Your task to perform on an android device: Open settings on Google Maps Image 0: 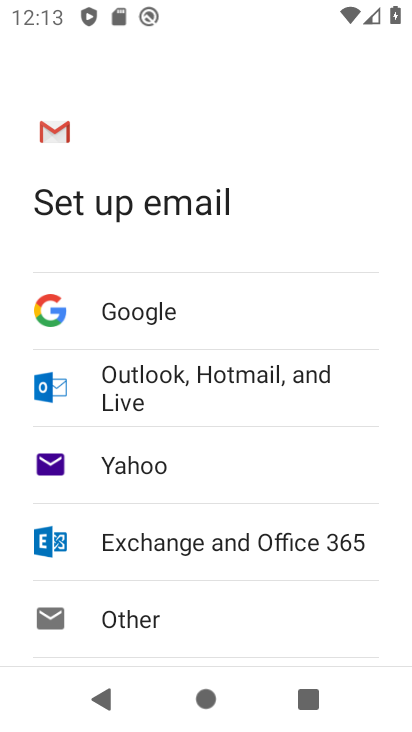
Step 0: press home button
Your task to perform on an android device: Open settings on Google Maps Image 1: 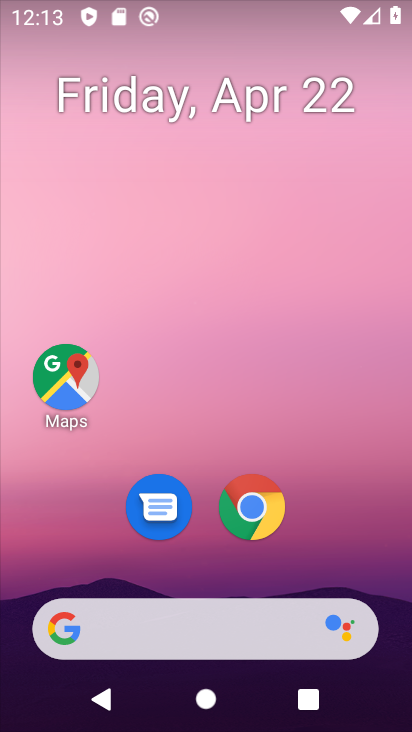
Step 1: click (45, 386)
Your task to perform on an android device: Open settings on Google Maps Image 2: 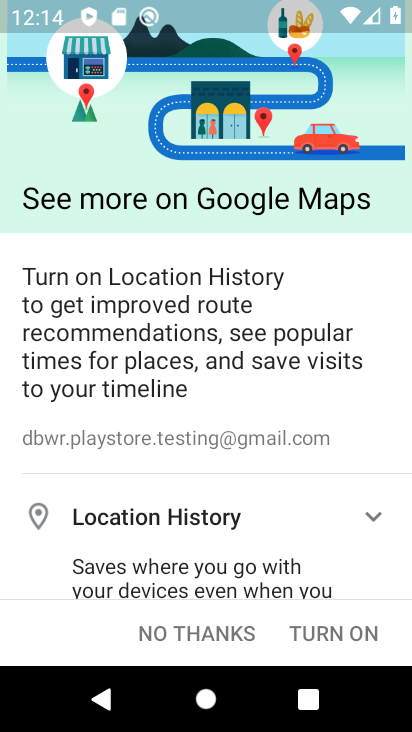
Step 2: press back button
Your task to perform on an android device: Open settings on Google Maps Image 3: 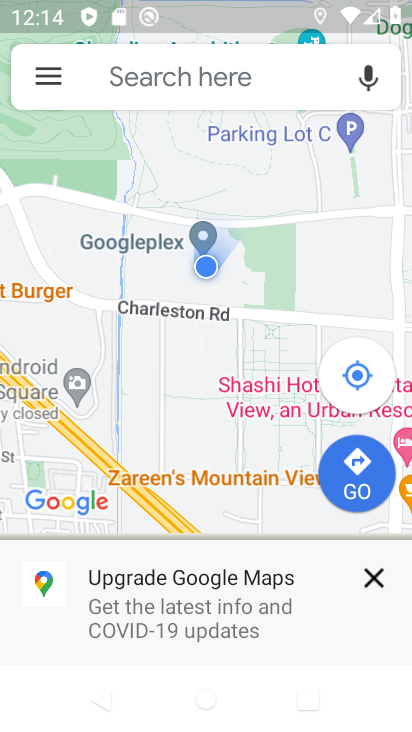
Step 3: click (43, 79)
Your task to perform on an android device: Open settings on Google Maps Image 4: 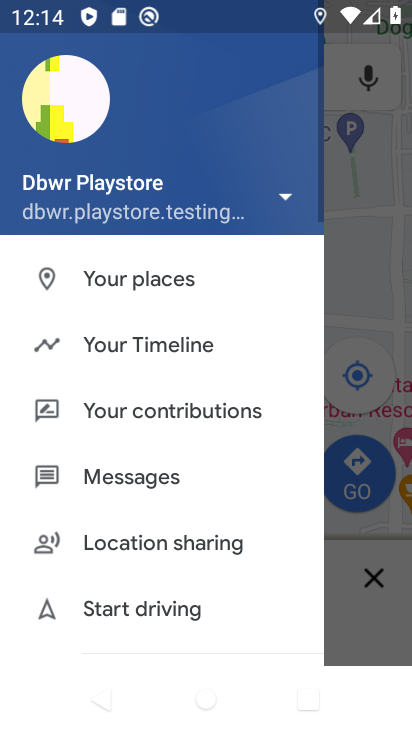
Step 4: drag from (110, 593) to (115, 268)
Your task to perform on an android device: Open settings on Google Maps Image 5: 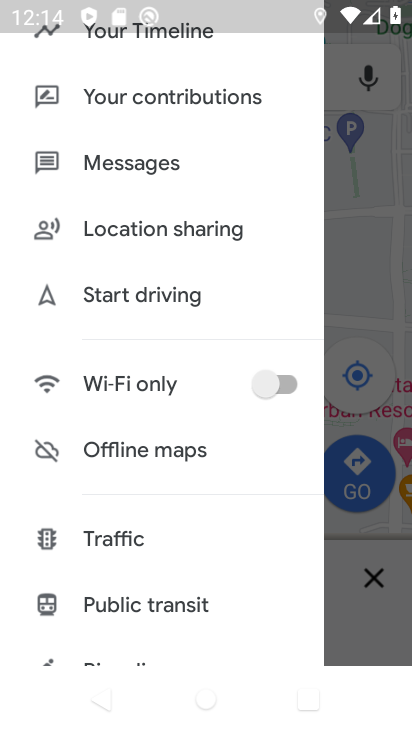
Step 5: drag from (121, 568) to (132, 228)
Your task to perform on an android device: Open settings on Google Maps Image 6: 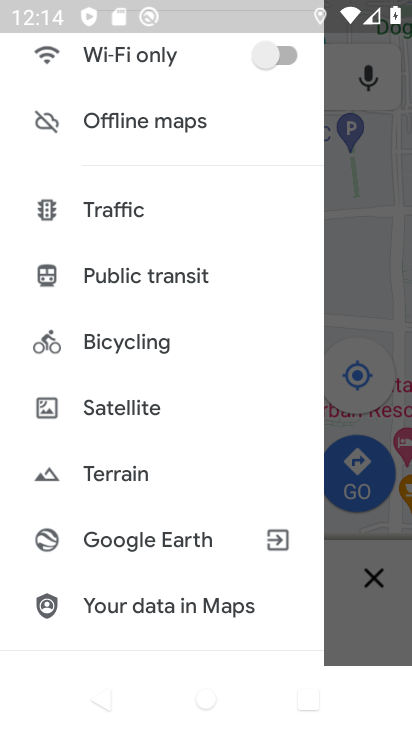
Step 6: drag from (153, 604) to (120, 164)
Your task to perform on an android device: Open settings on Google Maps Image 7: 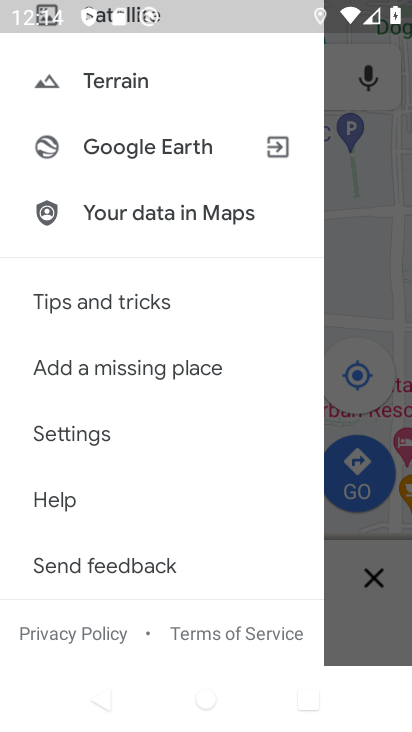
Step 7: click (79, 435)
Your task to perform on an android device: Open settings on Google Maps Image 8: 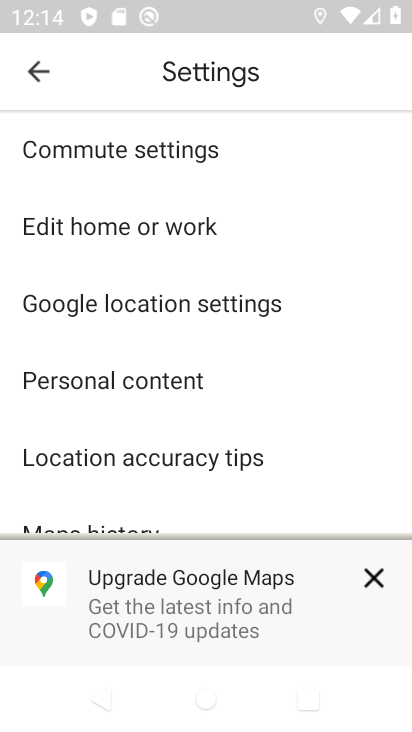
Step 8: click (372, 577)
Your task to perform on an android device: Open settings on Google Maps Image 9: 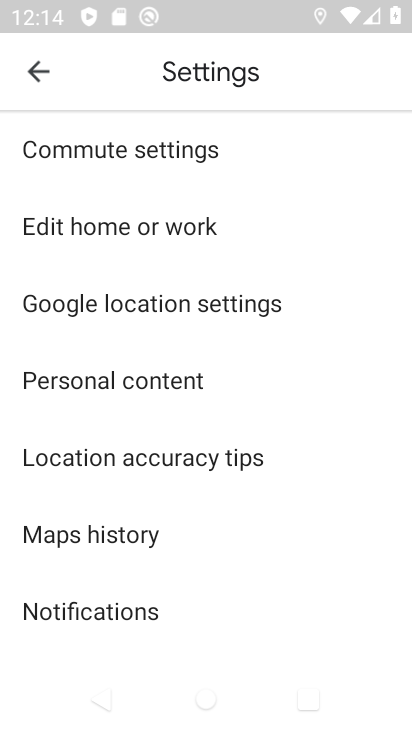
Step 9: task complete